Your task to perform on an android device: Open Amazon Image 0: 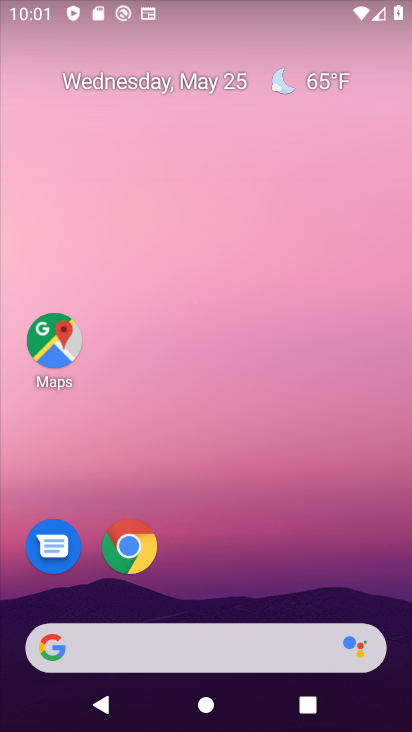
Step 0: drag from (260, 521) to (222, 30)
Your task to perform on an android device: Open Amazon Image 1: 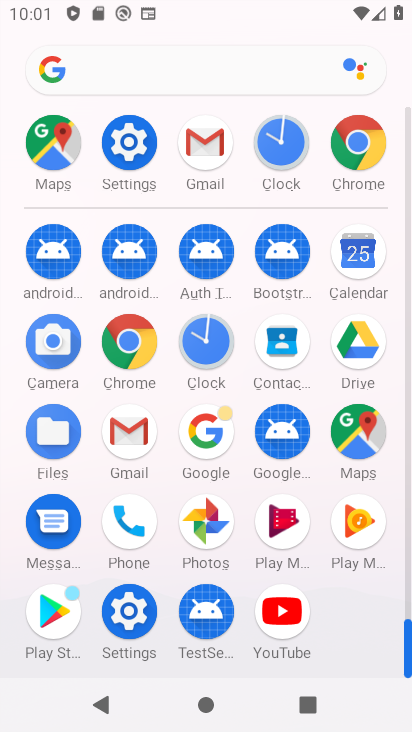
Step 1: click (126, 339)
Your task to perform on an android device: Open Amazon Image 2: 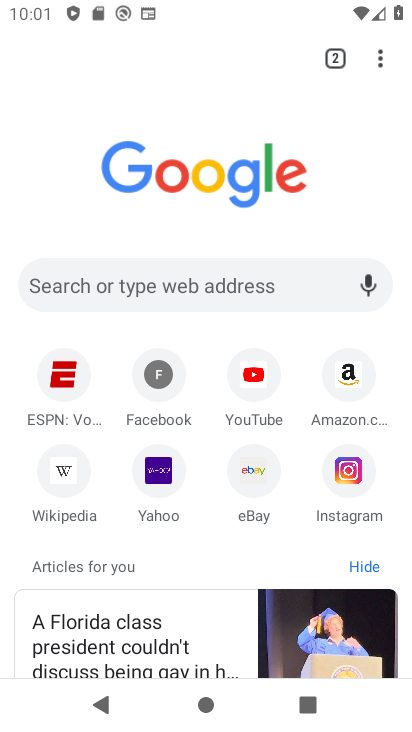
Step 2: click (341, 365)
Your task to perform on an android device: Open Amazon Image 3: 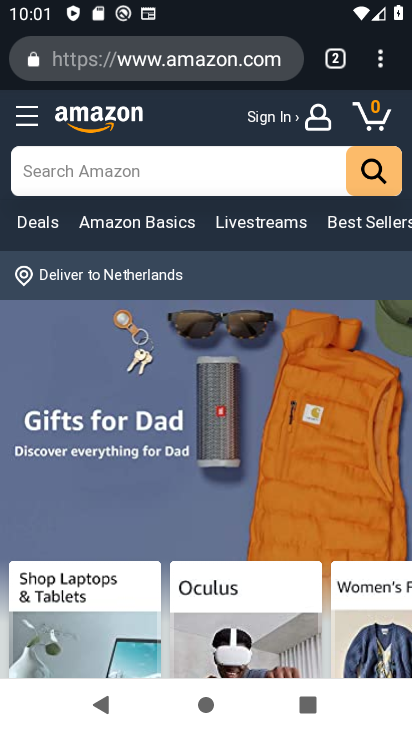
Step 3: task complete